Your task to perform on an android device: open app "Google Calendar" (install if not already installed) Image 0: 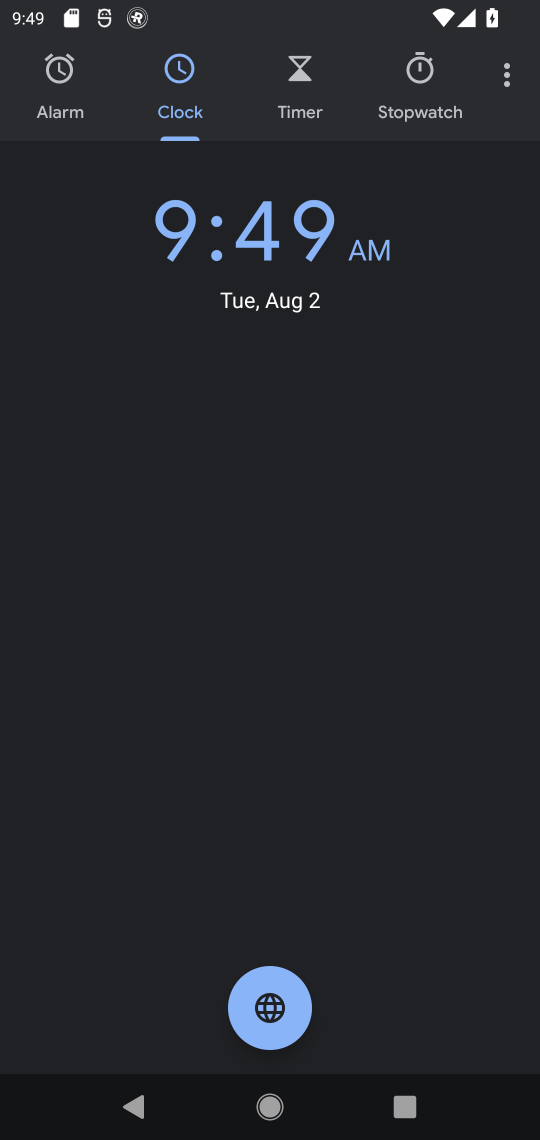
Step 0: press home button
Your task to perform on an android device: open app "Google Calendar" (install if not already installed) Image 1: 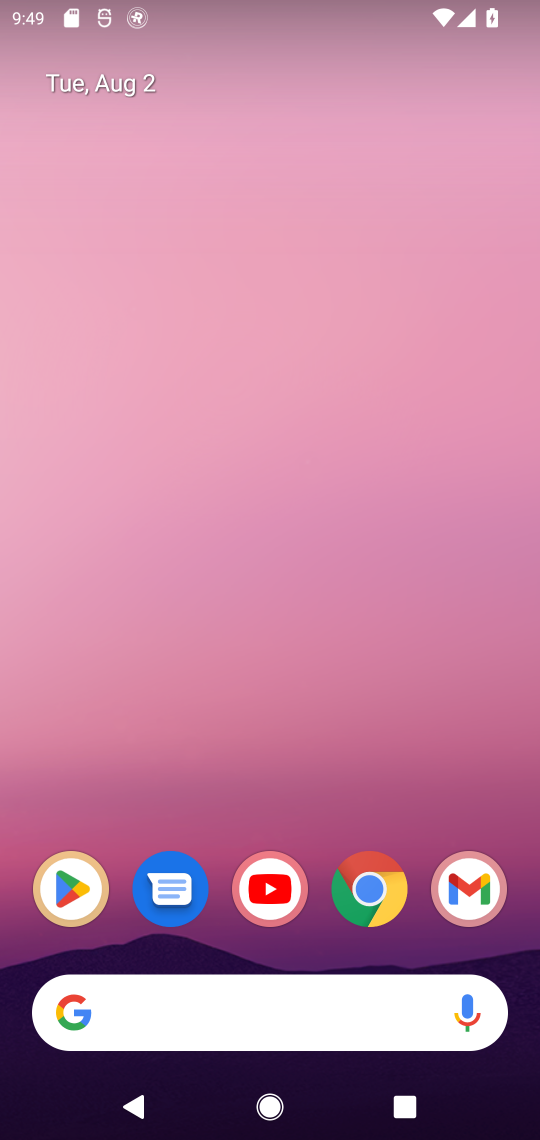
Step 1: click (71, 889)
Your task to perform on an android device: open app "Google Calendar" (install if not already installed) Image 2: 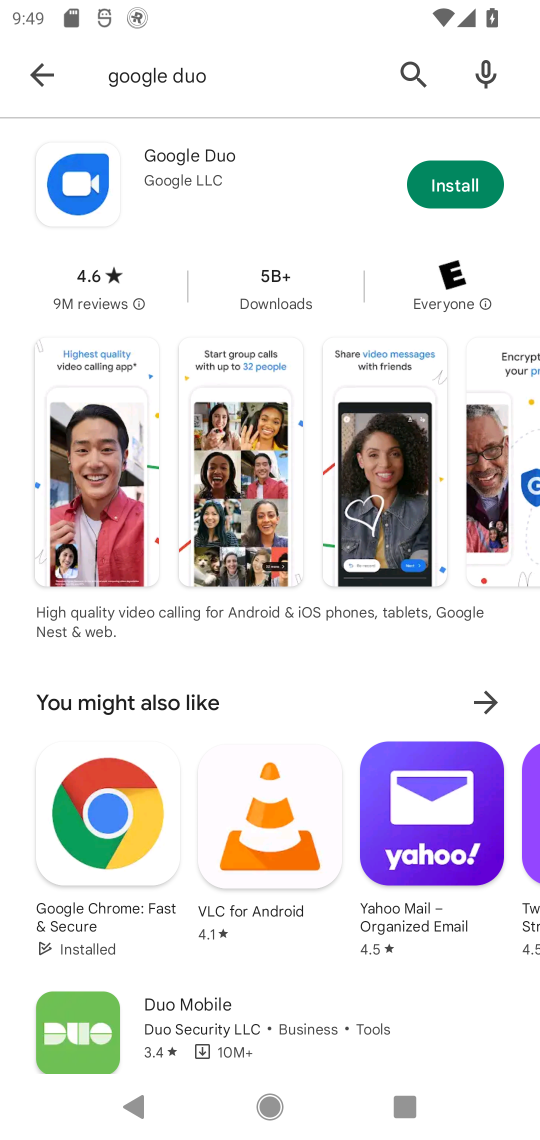
Step 2: click (405, 73)
Your task to perform on an android device: open app "Google Calendar" (install if not already installed) Image 3: 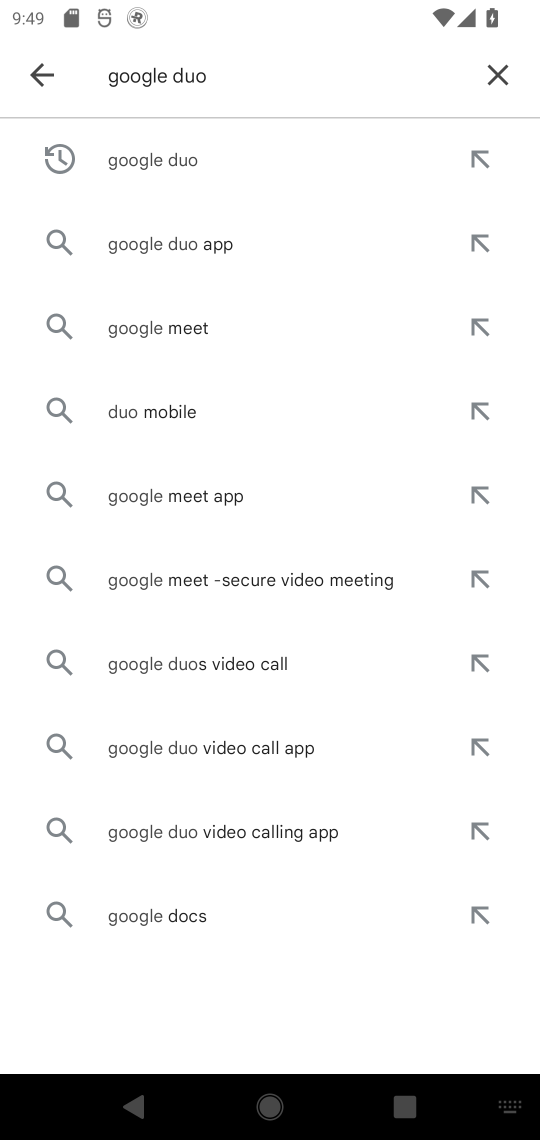
Step 3: click (494, 73)
Your task to perform on an android device: open app "Google Calendar" (install if not already installed) Image 4: 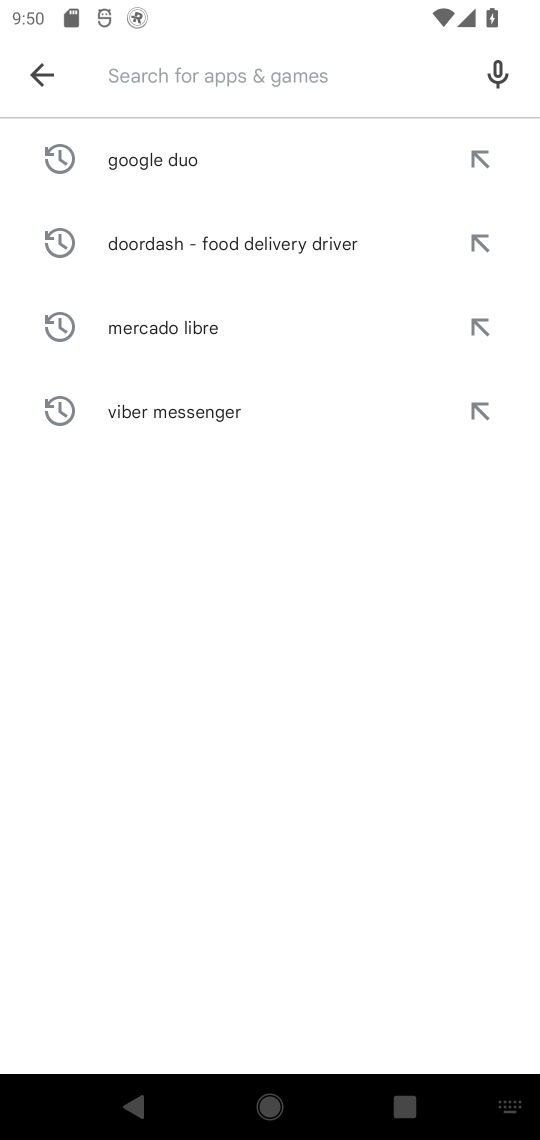
Step 4: type "Google Calendar"
Your task to perform on an android device: open app "Google Calendar" (install if not already installed) Image 5: 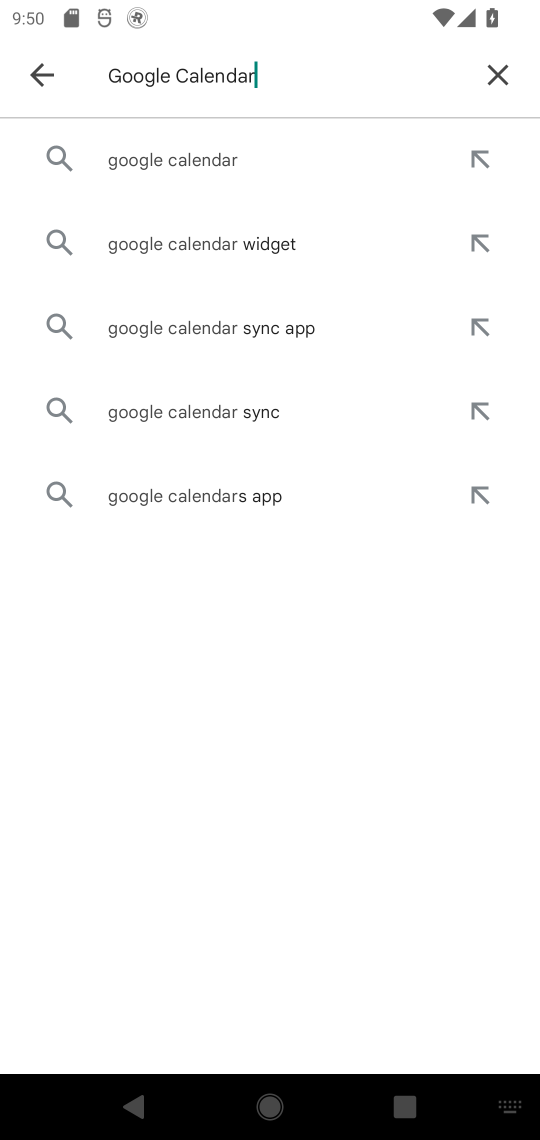
Step 5: click (181, 157)
Your task to perform on an android device: open app "Google Calendar" (install if not already installed) Image 6: 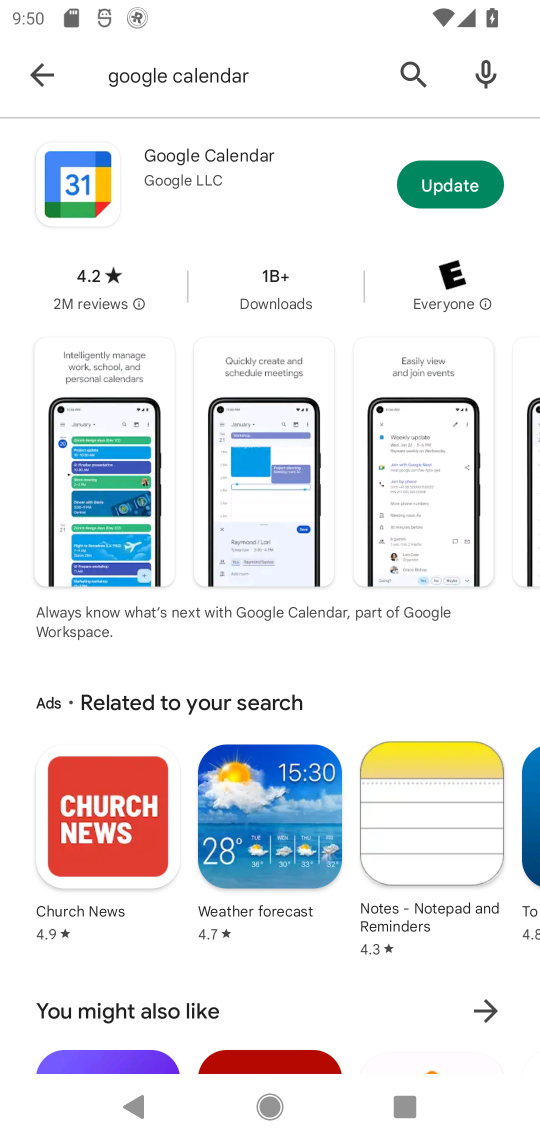
Step 6: click (164, 178)
Your task to perform on an android device: open app "Google Calendar" (install if not already installed) Image 7: 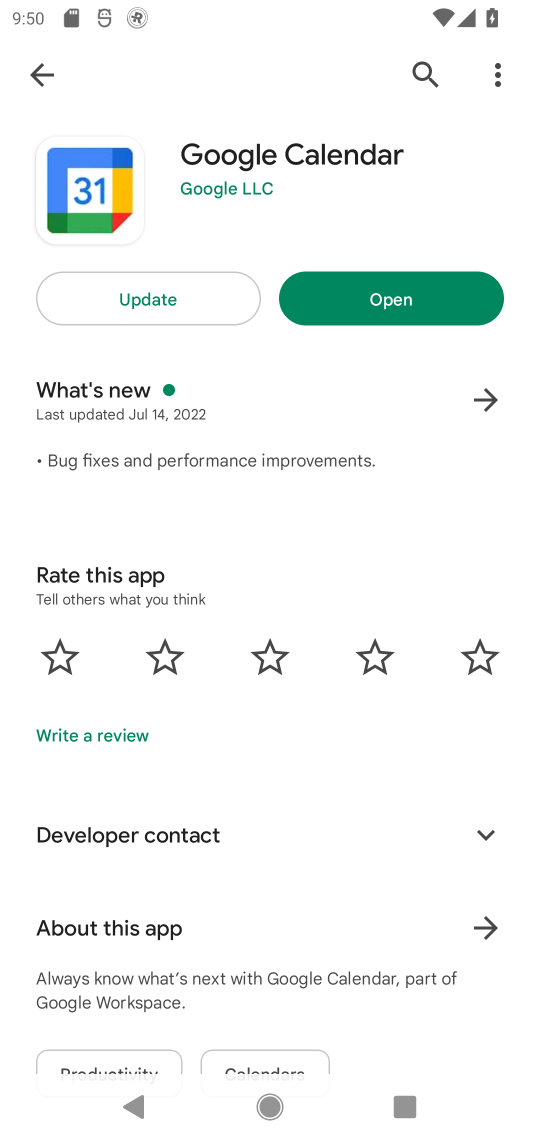
Step 7: click (414, 293)
Your task to perform on an android device: open app "Google Calendar" (install if not already installed) Image 8: 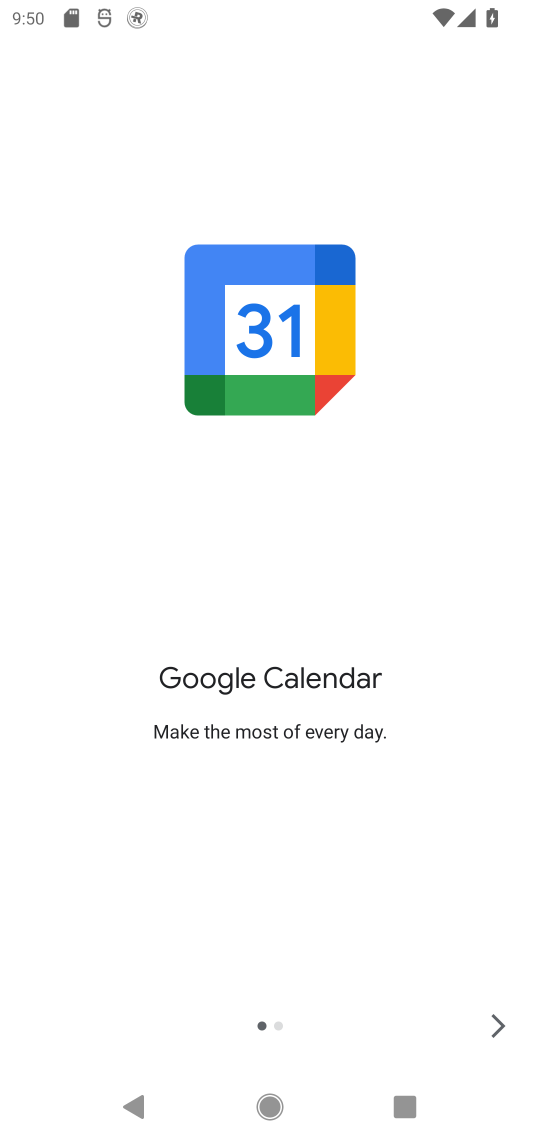
Step 8: task complete